Your task to perform on an android device: open app "Microsoft Outlook" (install if not already installed), go to login, and select forgot password Image 0: 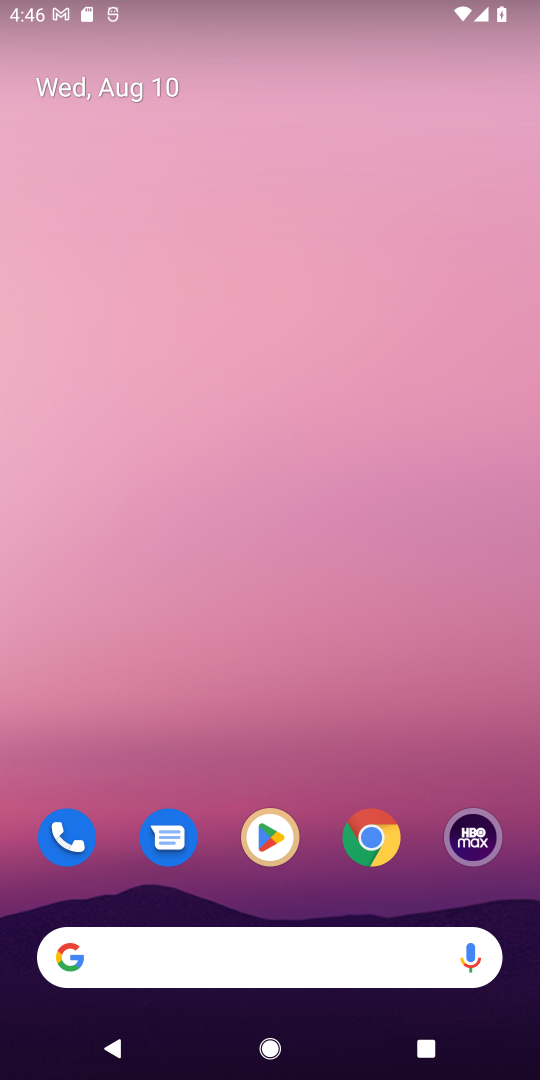
Step 0: click (260, 847)
Your task to perform on an android device: open app "Microsoft Outlook" (install if not already installed), go to login, and select forgot password Image 1: 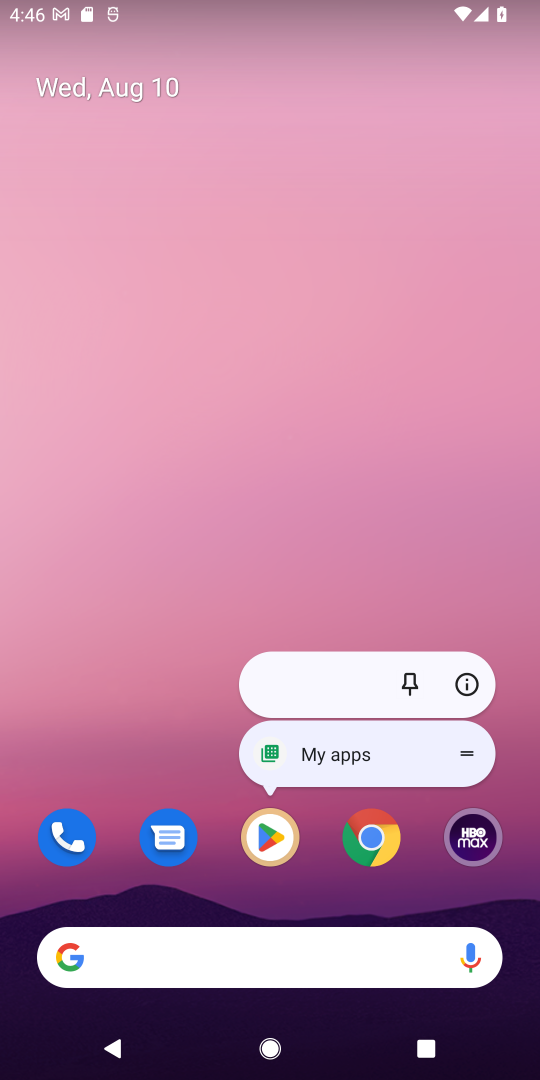
Step 1: click (260, 849)
Your task to perform on an android device: open app "Microsoft Outlook" (install if not already installed), go to login, and select forgot password Image 2: 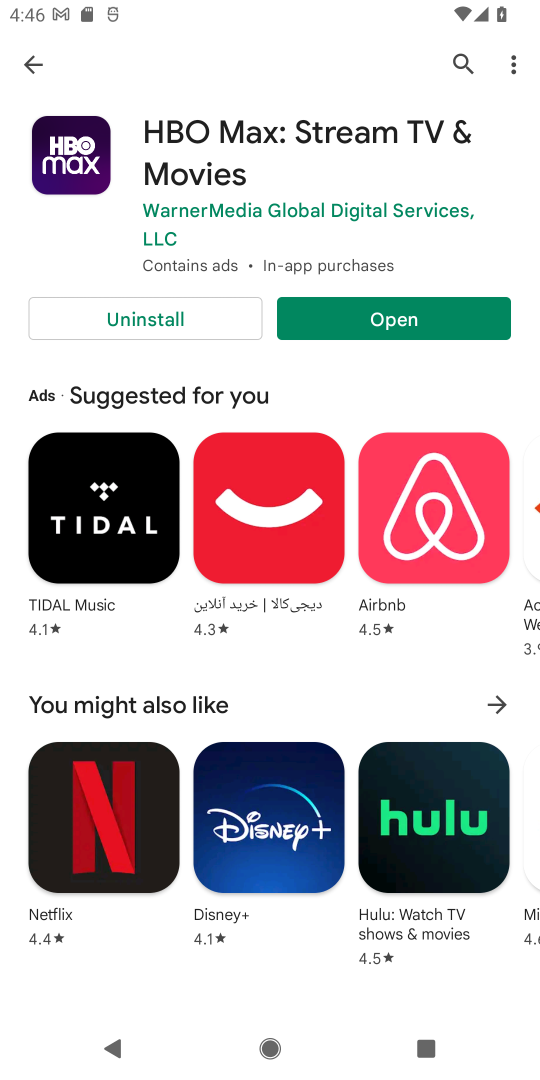
Step 2: click (457, 56)
Your task to perform on an android device: open app "Microsoft Outlook" (install if not already installed), go to login, and select forgot password Image 3: 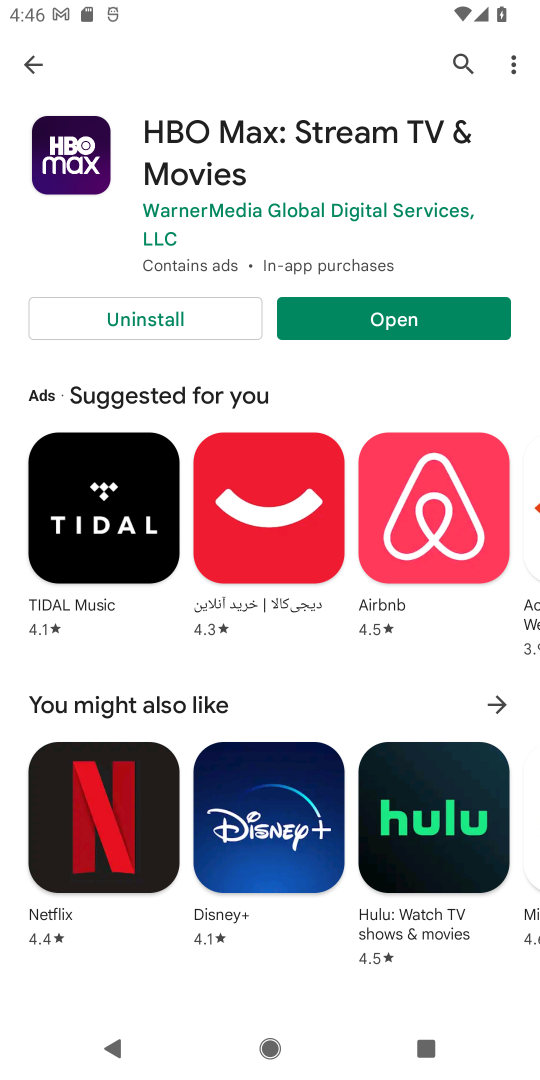
Step 3: click (457, 60)
Your task to perform on an android device: open app "Microsoft Outlook" (install if not already installed), go to login, and select forgot password Image 4: 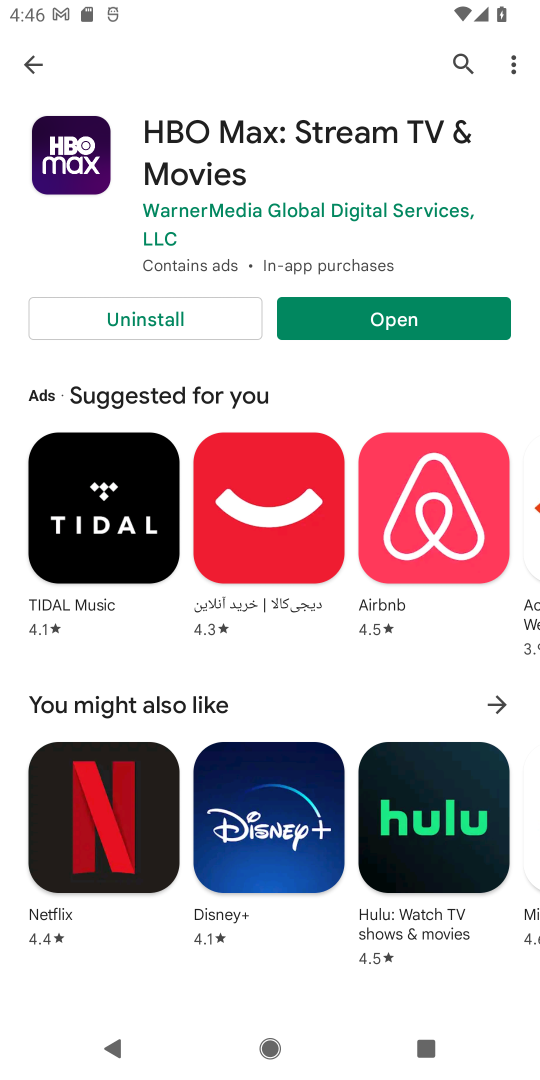
Step 4: click (452, 64)
Your task to perform on an android device: open app "Microsoft Outlook" (install if not already installed), go to login, and select forgot password Image 5: 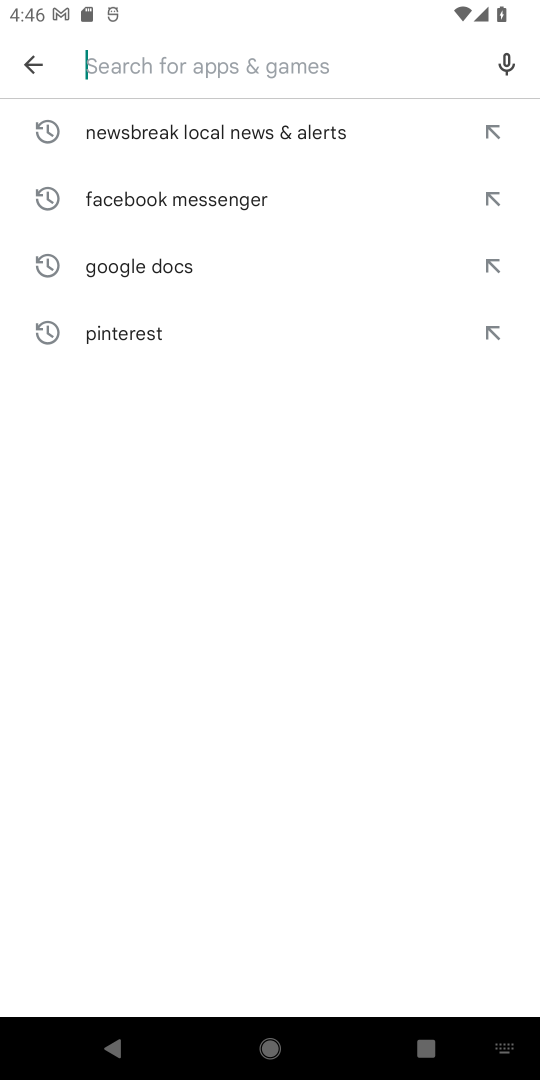
Step 5: type "Microsoft Outlook"
Your task to perform on an android device: open app "Microsoft Outlook" (install if not already installed), go to login, and select forgot password Image 6: 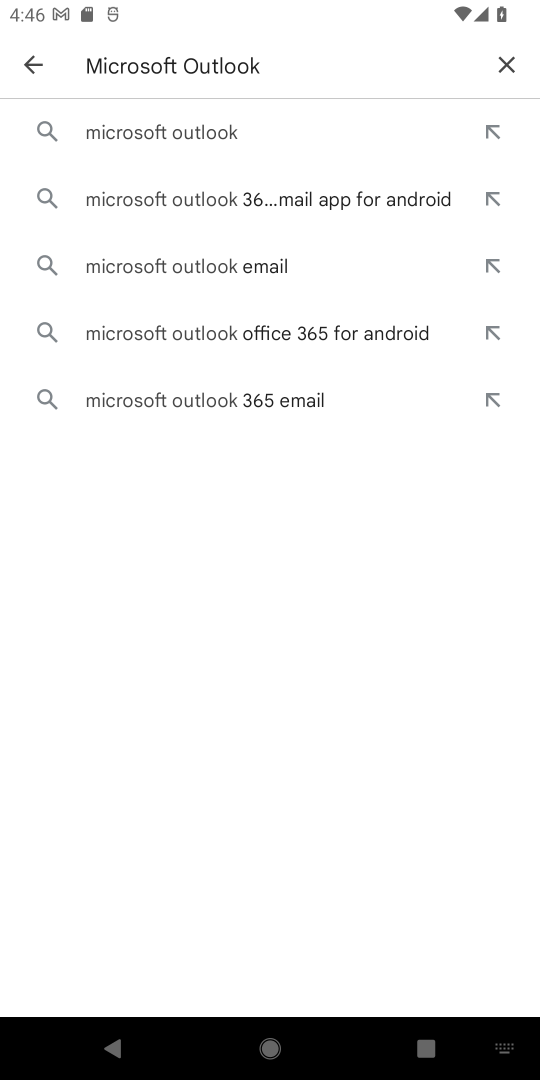
Step 6: click (220, 130)
Your task to perform on an android device: open app "Microsoft Outlook" (install if not already installed), go to login, and select forgot password Image 7: 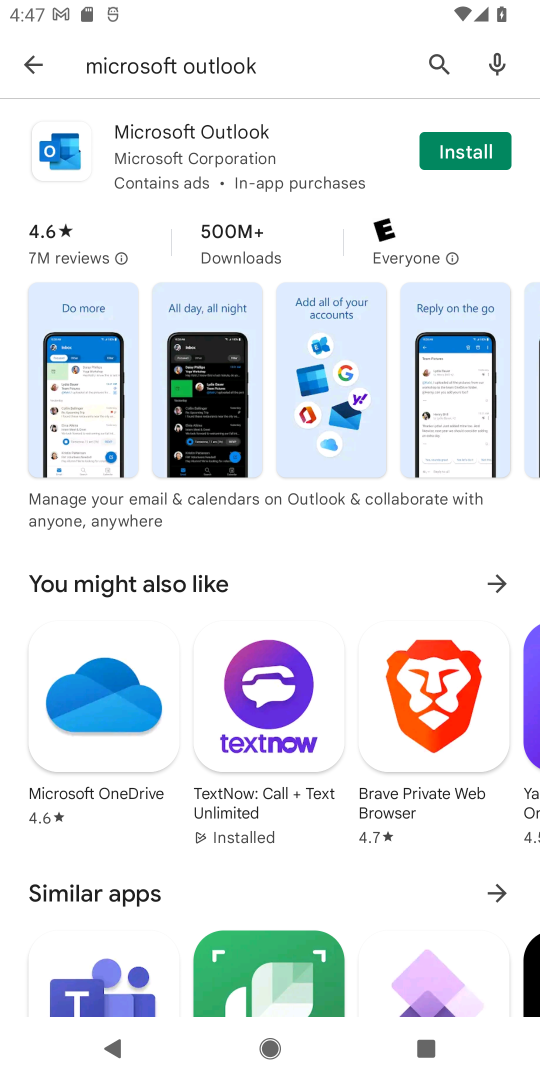
Step 7: click (459, 155)
Your task to perform on an android device: open app "Microsoft Outlook" (install if not already installed), go to login, and select forgot password Image 8: 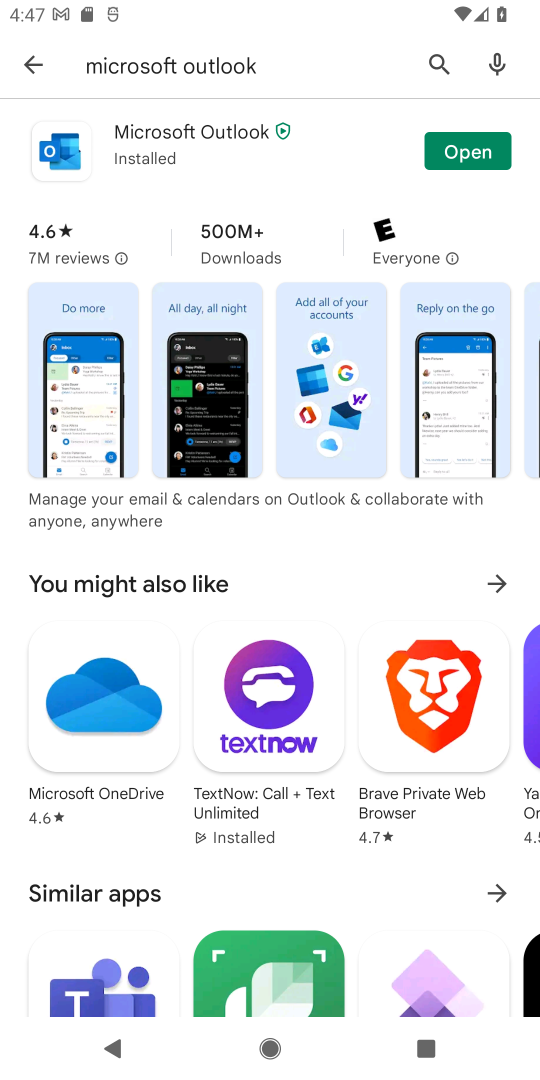
Step 8: click (486, 156)
Your task to perform on an android device: open app "Microsoft Outlook" (install if not already installed), go to login, and select forgot password Image 9: 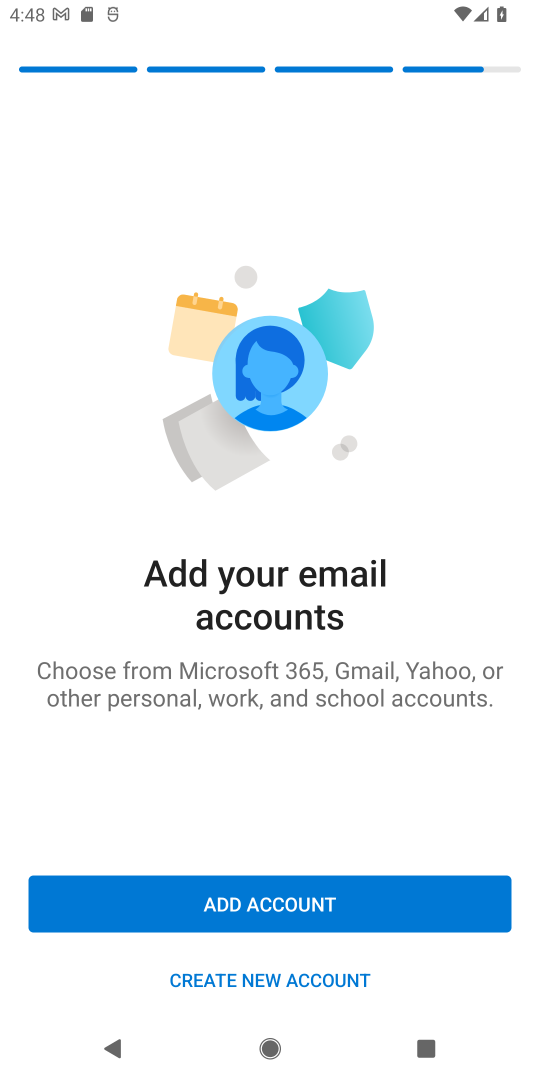
Step 9: task complete